Your task to perform on an android device: Check the news Image 0: 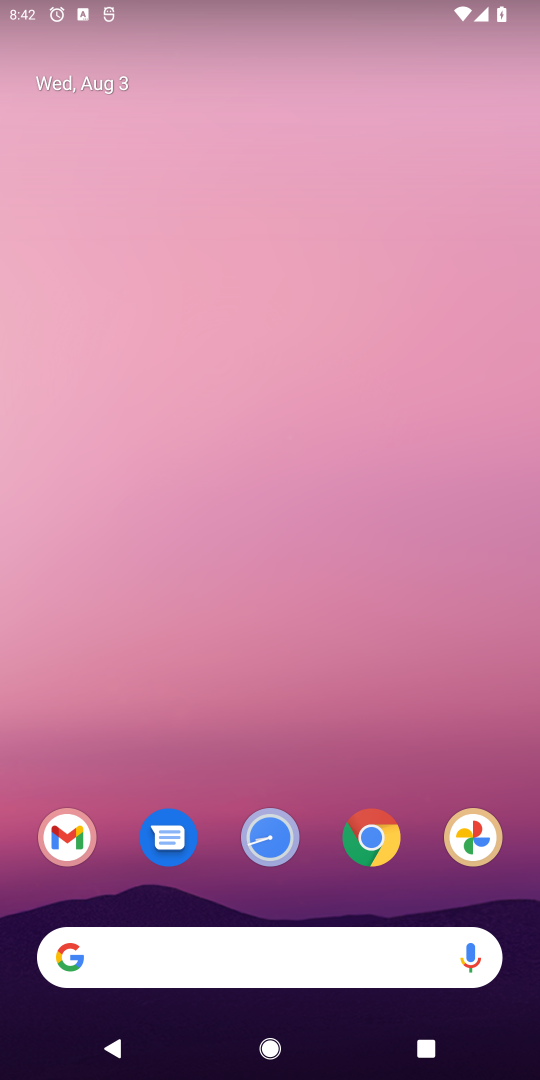
Step 0: press home button
Your task to perform on an android device: Check the news Image 1: 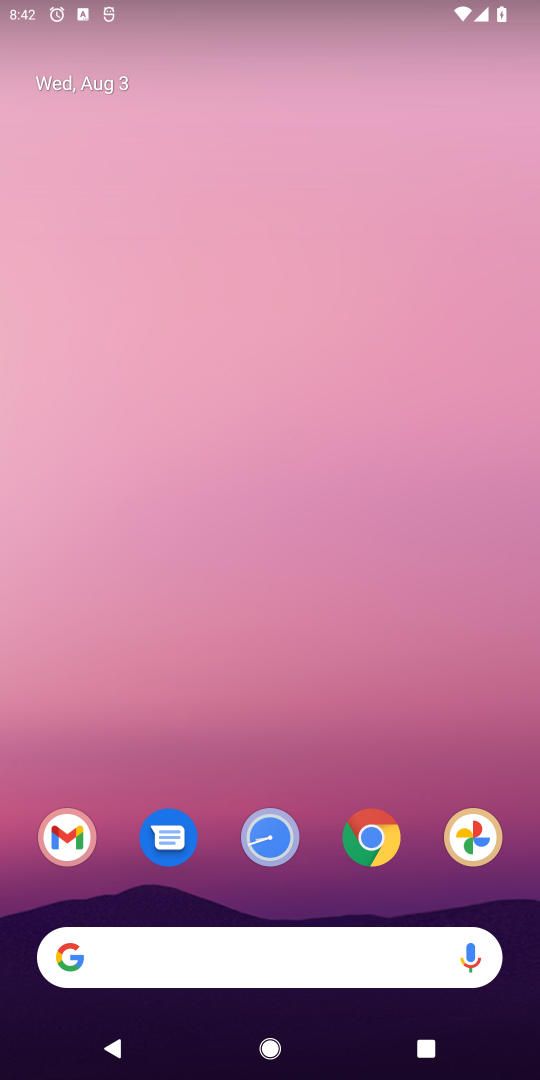
Step 1: click (68, 964)
Your task to perform on an android device: Check the news Image 2: 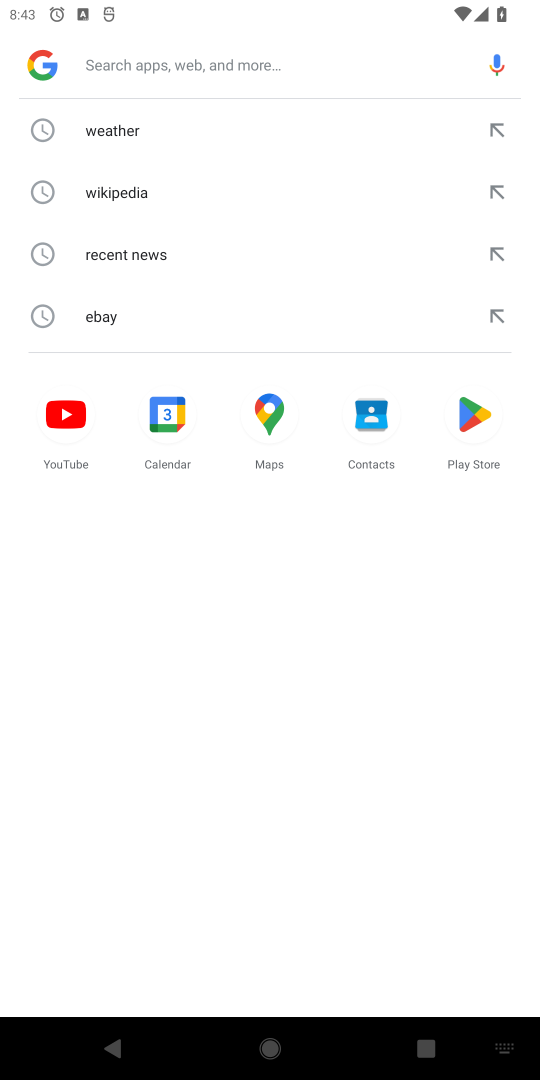
Step 2: type "news"
Your task to perform on an android device: Check the news Image 3: 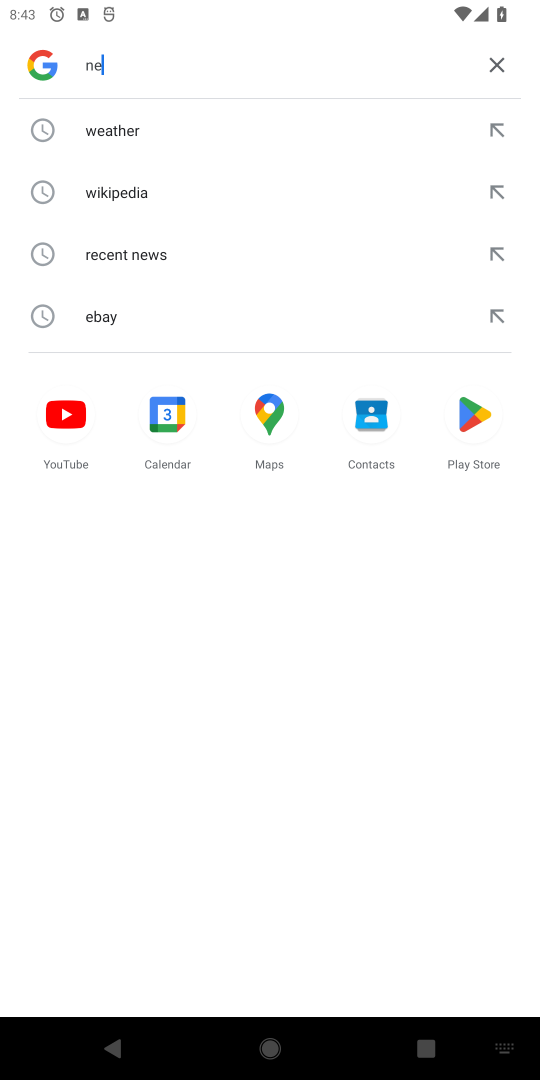
Step 3: press enter
Your task to perform on an android device: Check the news Image 4: 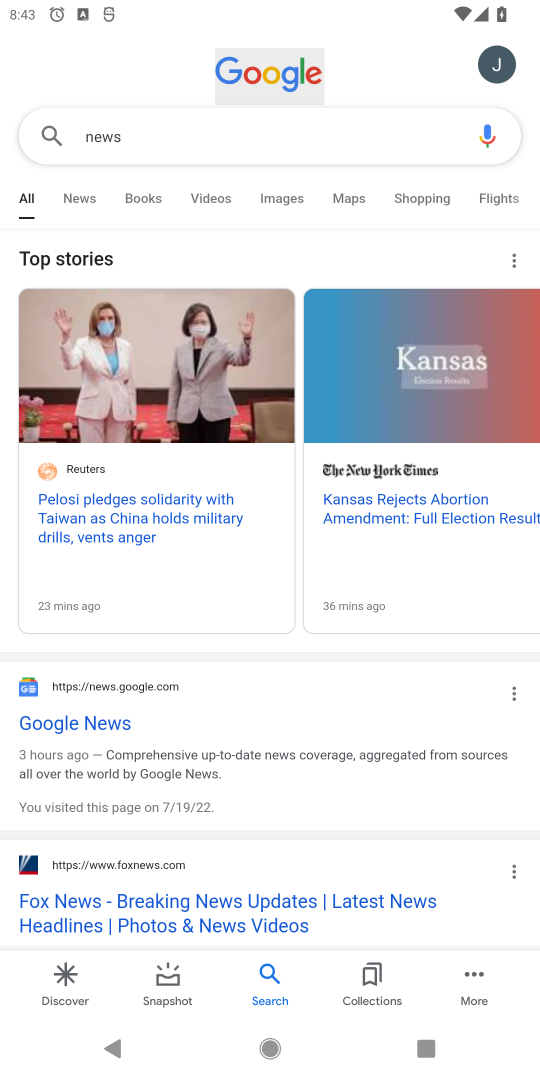
Step 4: task complete